Your task to perform on an android device: Open the map Image 0: 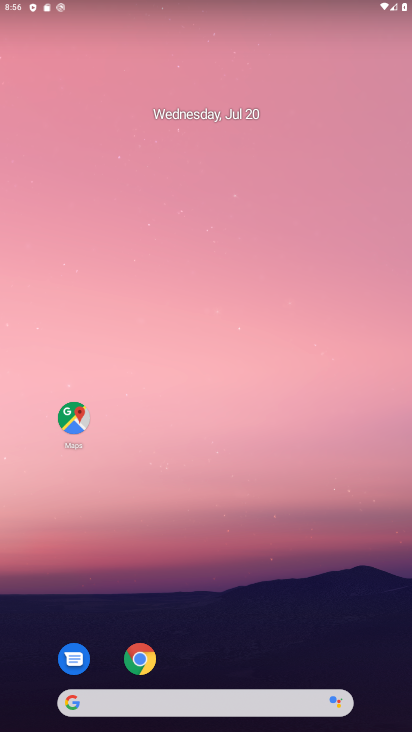
Step 0: click (59, 418)
Your task to perform on an android device: Open the map Image 1: 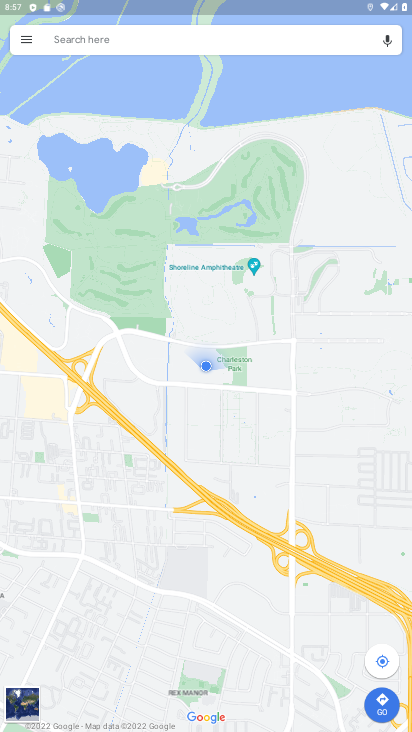
Step 1: task complete